Your task to perform on an android device: Go to display settings Image 0: 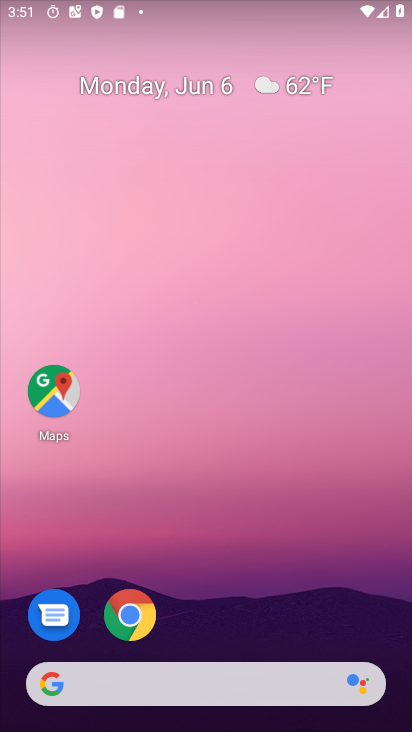
Step 0: drag from (342, 611) to (355, 25)
Your task to perform on an android device: Go to display settings Image 1: 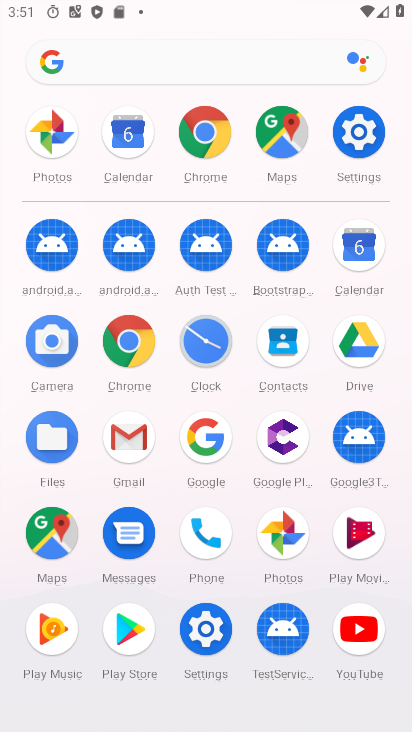
Step 1: click (376, 140)
Your task to perform on an android device: Go to display settings Image 2: 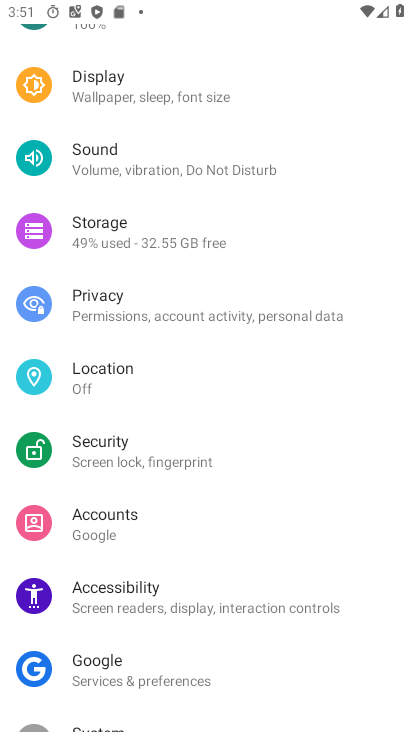
Step 2: click (121, 80)
Your task to perform on an android device: Go to display settings Image 3: 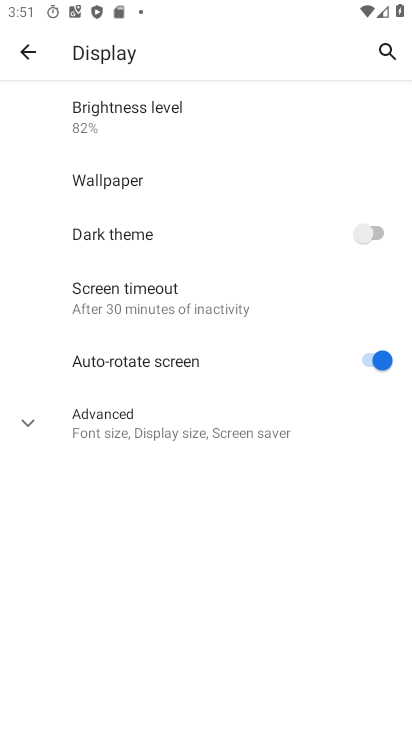
Step 3: task complete